Your task to perform on an android device: Go to eBay Image 0: 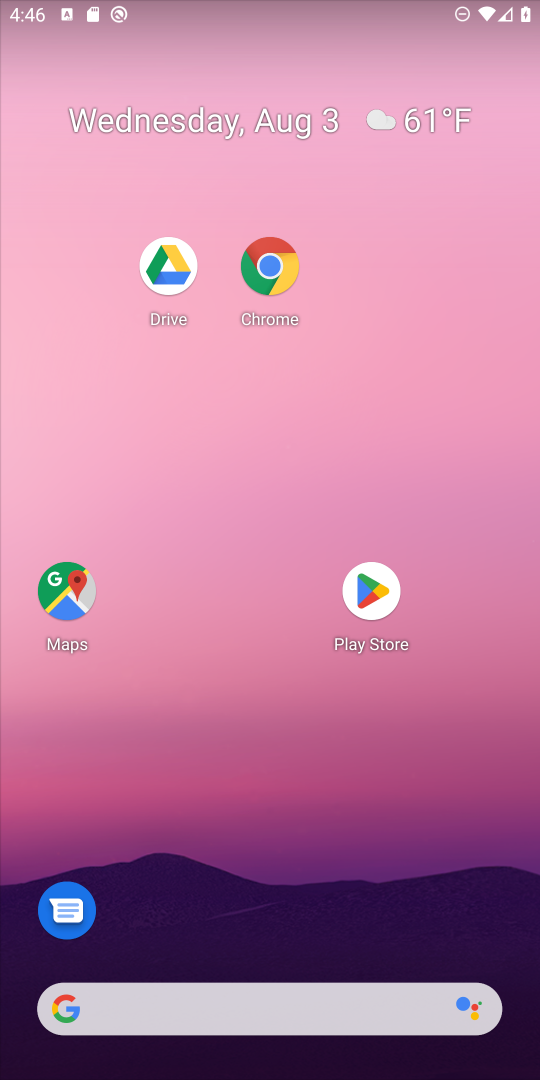
Step 0: press home button
Your task to perform on an android device: Go to eBay Image 1: 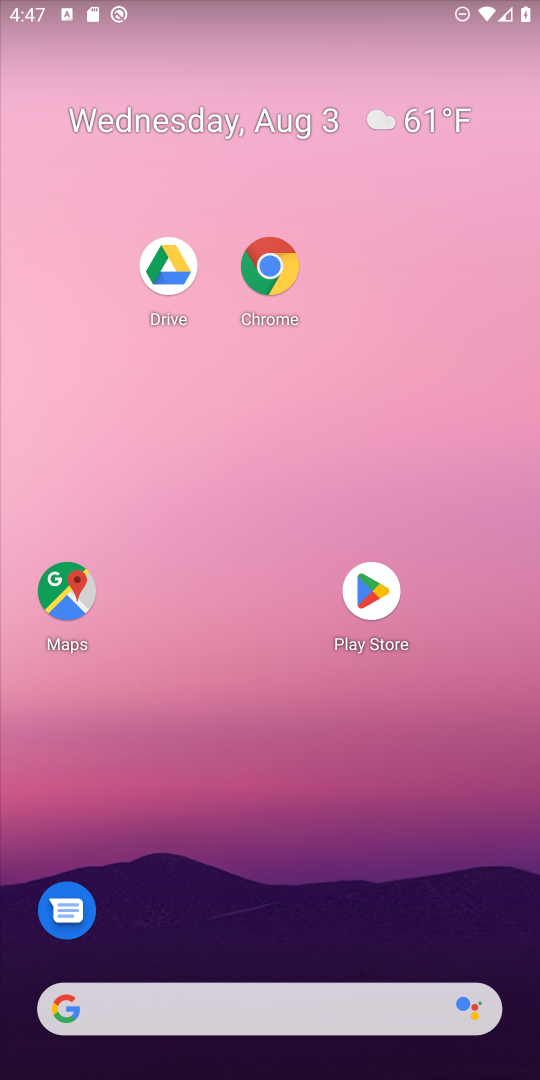
Step 1: drag from (270, 276) to (259, 27)
Your task to perform on an android device: Go to eBay Image 2: 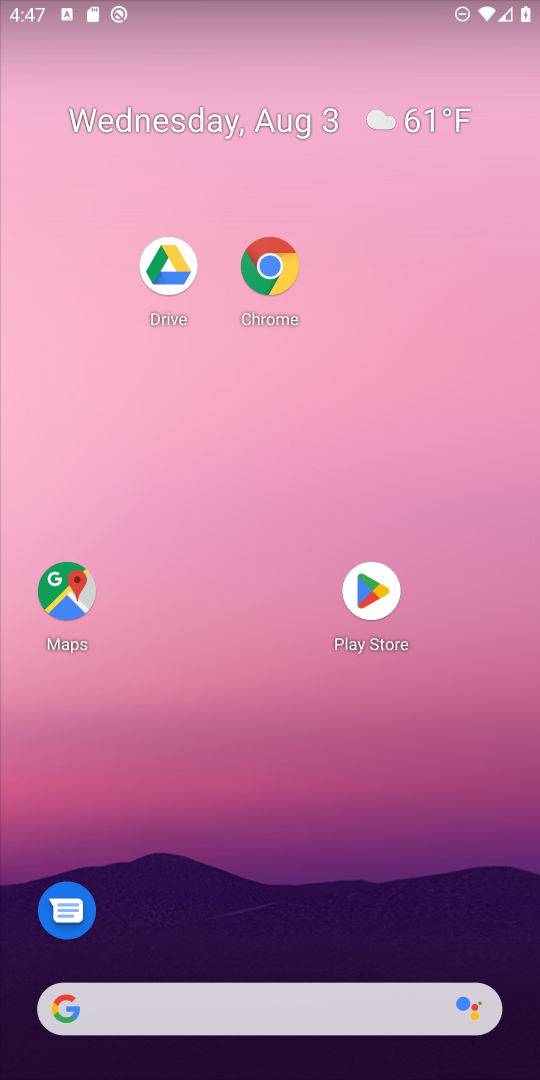
Step 2: drag from (256, 1012) to (349, 58)
Your task to perform on an android device: Go to eBay Image 3: 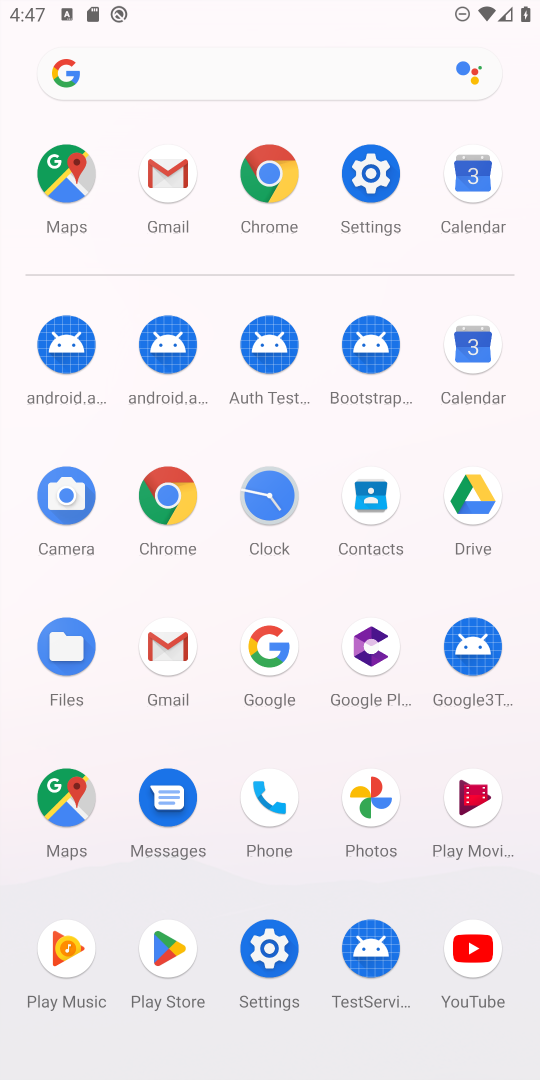
Step 3: click (163, 498)
Your task to perform on an android device: Go to eBay Image 4: 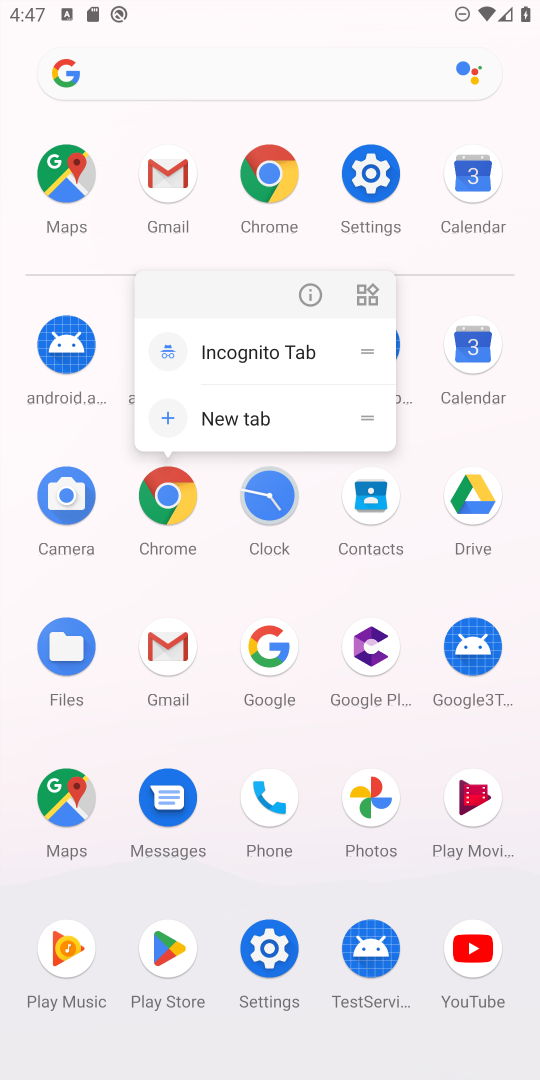
Step 4: click (173, 489)
Your task to perform on an android device: Go to eBay Image 5: 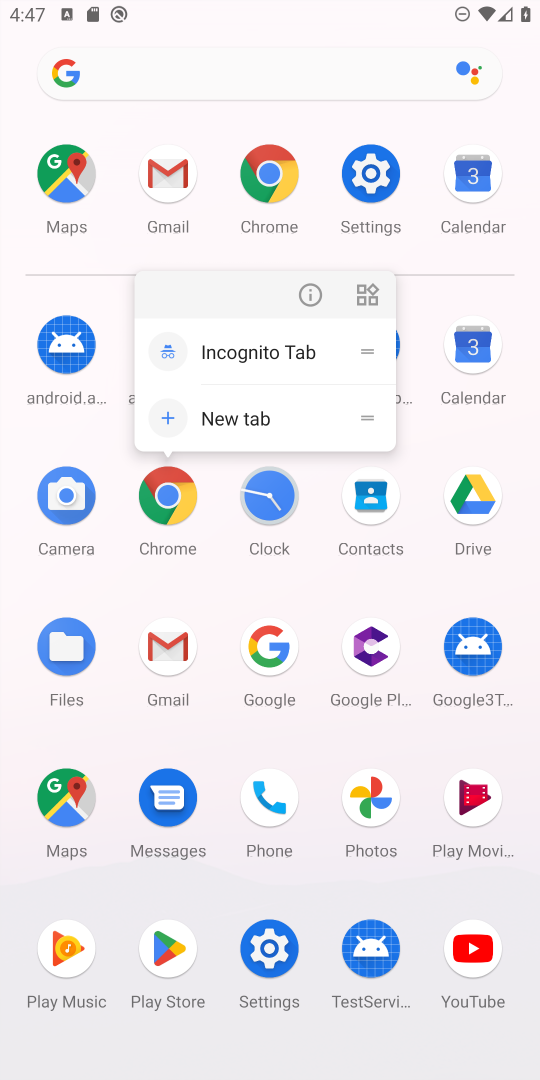
Step 5: click (173, 489)
Your task to perform on an android device: Go to eBay Image 6: 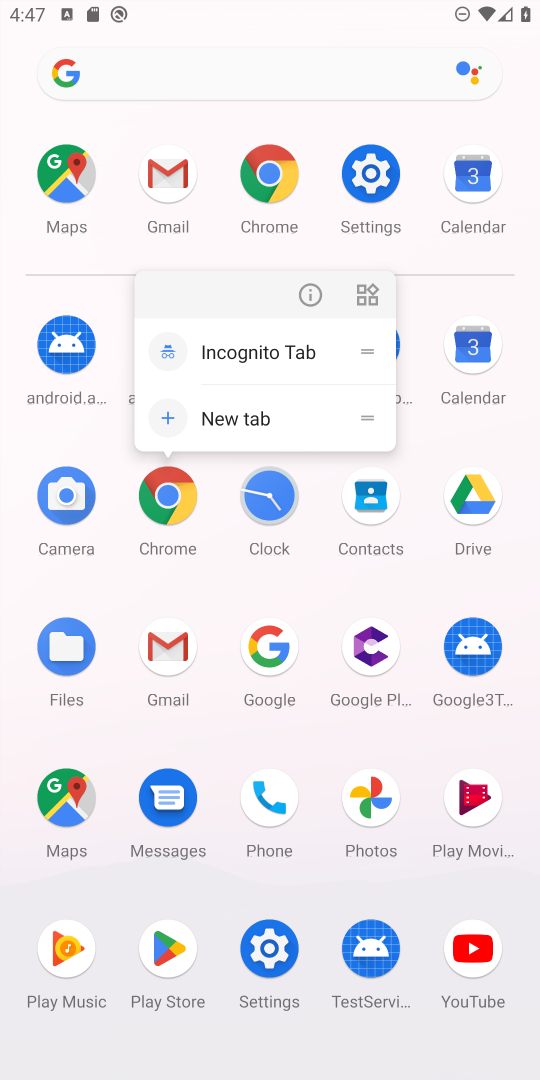
Step 6: click (173, 489)
Your task to perform on an android device: Go to eBay Image 7: 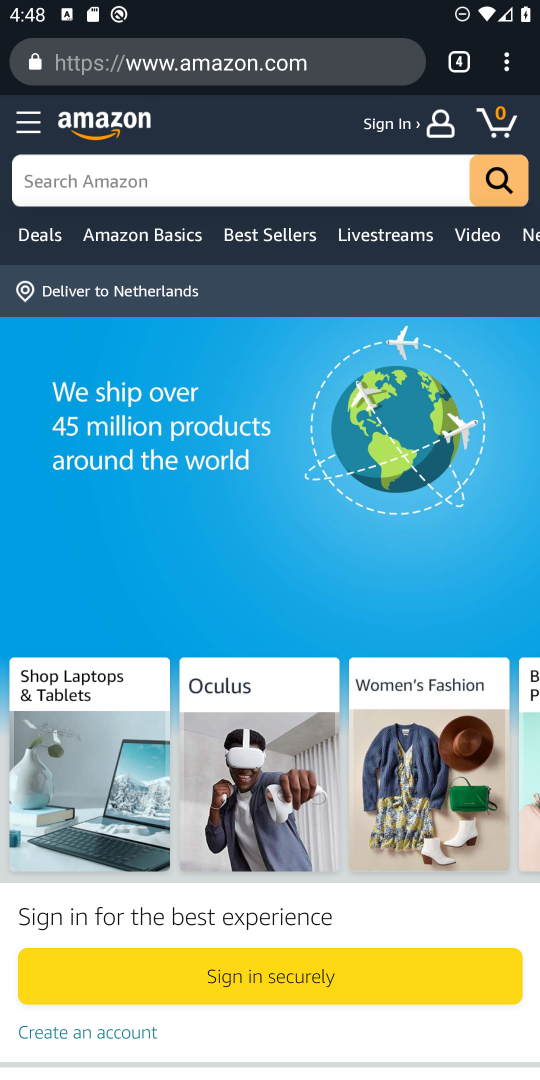
Step 7: click (335, 67)
Your task to perform on an android device: Go to eBay Image 8: 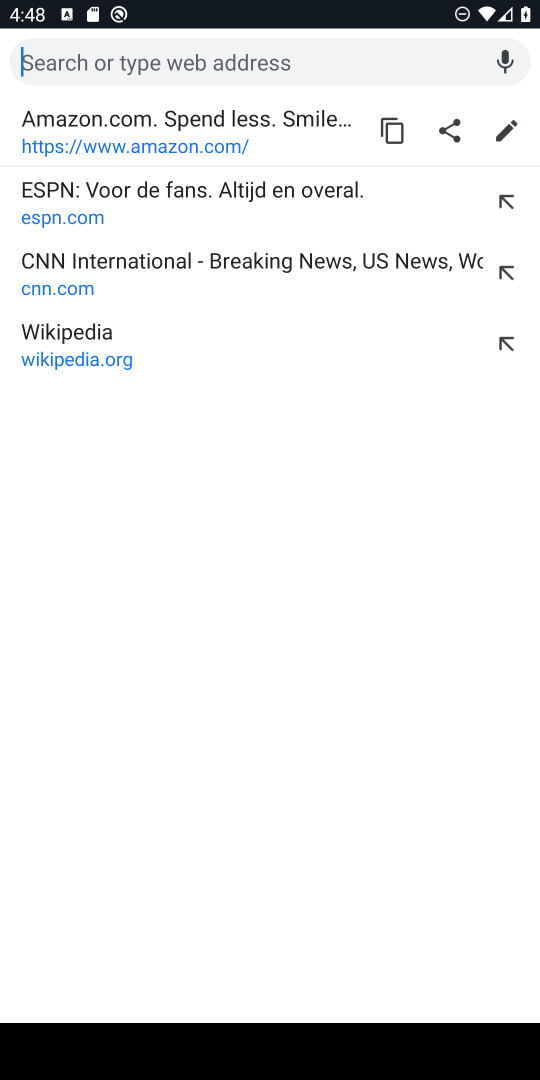
Step 8: type "ebay"
Your task to perform on an android device: Go to eBay Image 9: 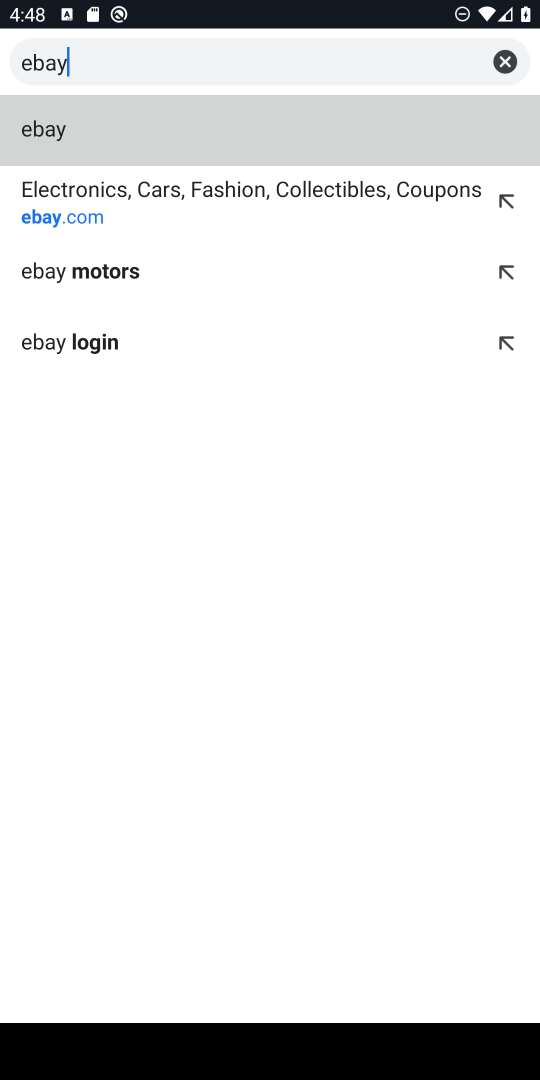
Step 9: click (140, 189)
Your task to perform on an android device: Go to eBay Image 10: 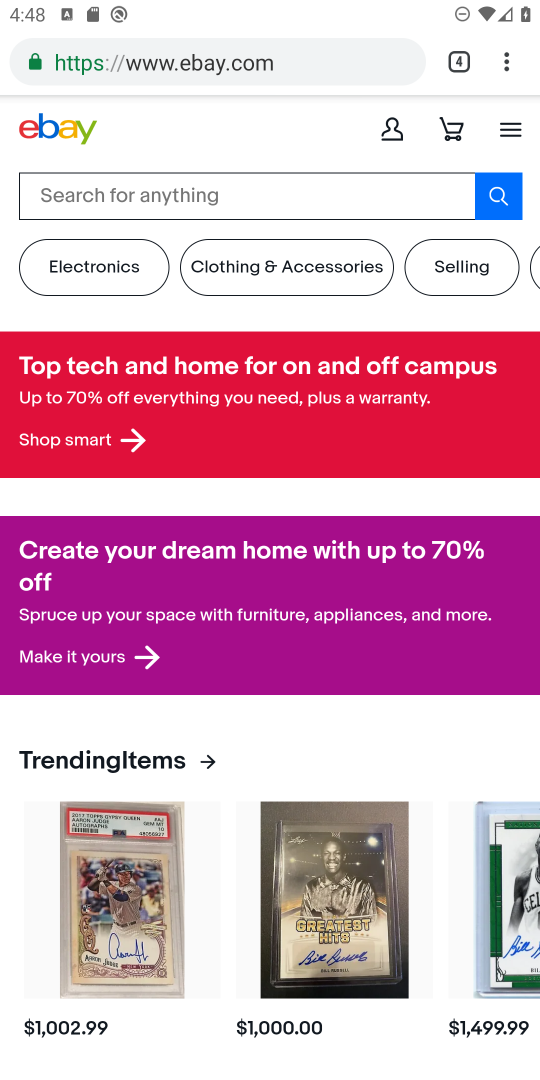
Step 10: task complete